Your task to perform on an android device: Open Youtube and go to "Your channel" Image 0: 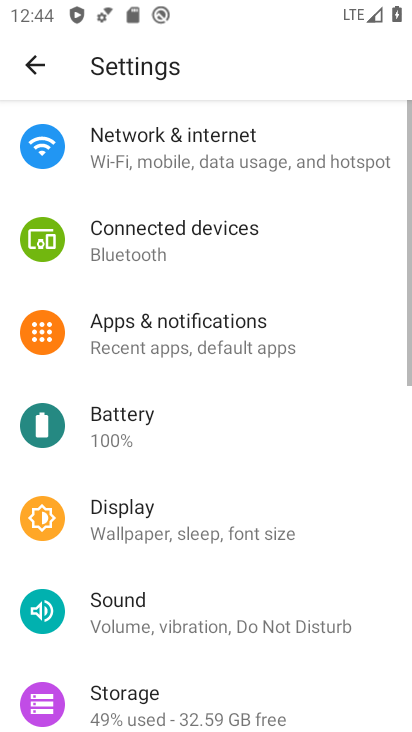
Step 0: press home button
Your task to perform on an android device: Open Youtube and go to "Your channel" Image 1: 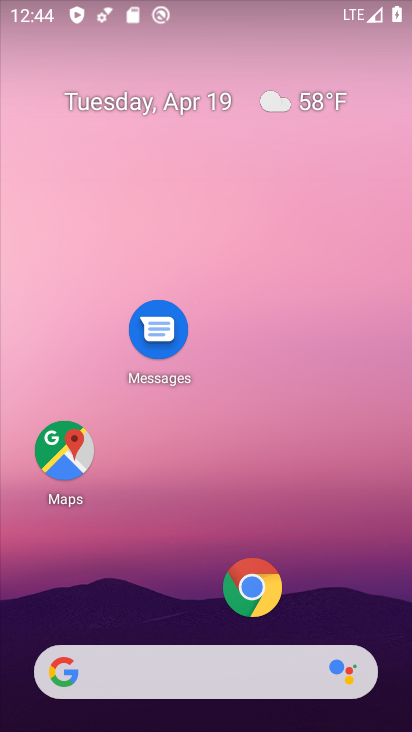
Step 1: drag from (188, 544) to (173, 150)
Your task to perform on an android device: Open Youtube and go to "Your channel" Image 2: 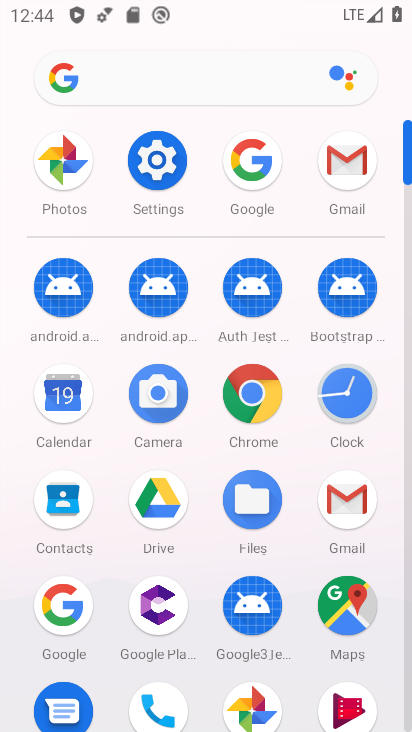
Step 2: drag from (212, 625) to (224, 161)
Your task to perform on an android device: Open Youtube and go to "Your channel" Image 3: 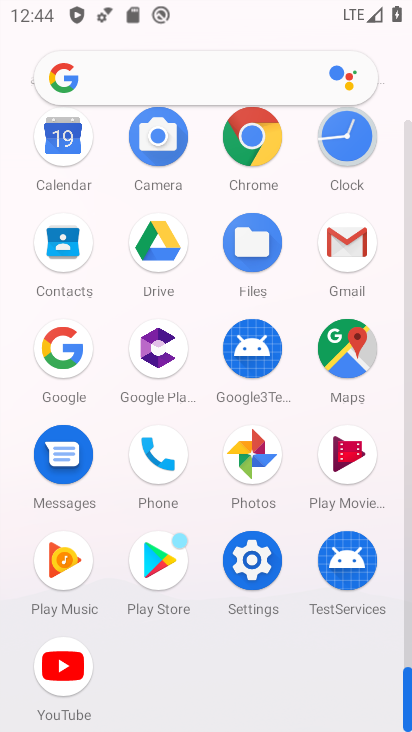
Step 3: click (63, 664)
Your task to perform on an android device: Open Youtube and go to "Your channel" Image 4: 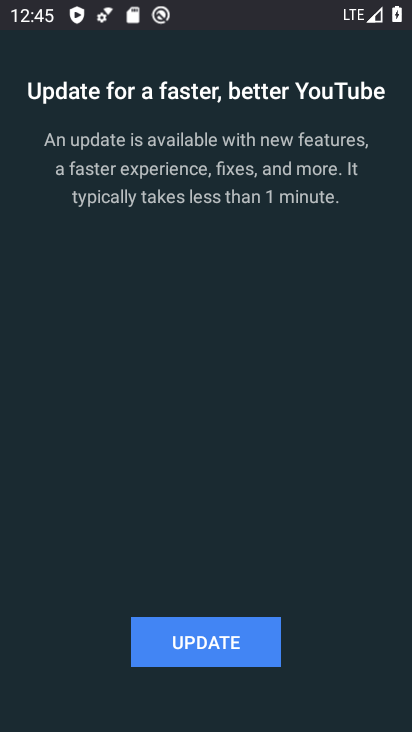
Step 4: click (201, 645)
Your task to perform on an android device: Open Youtube and go to "Your channel" Image 5: 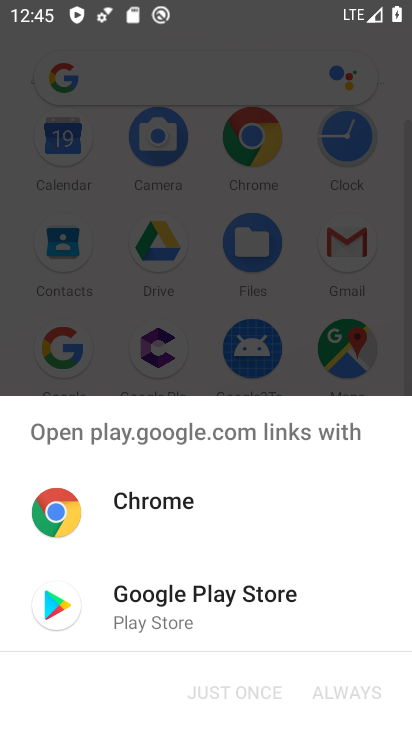
Step 5: click (168, 601)
Your task to perform on an android device: Open Youtube and go to "Your channel" Image 6: 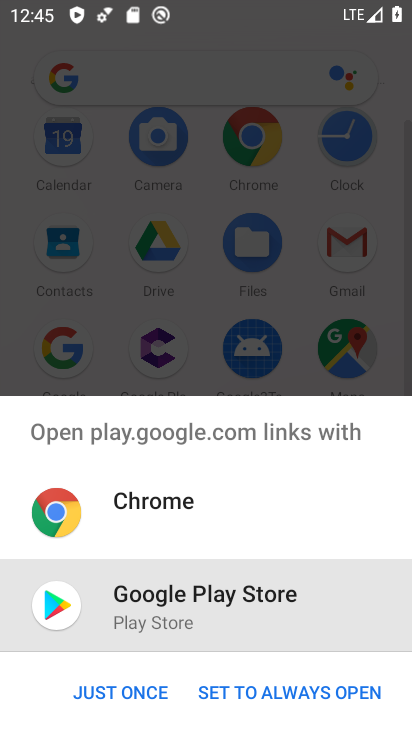
Step 6: click (143, 694)
Your task to perform on an android device: Open Youtube and go to "Your channel" Image 7: 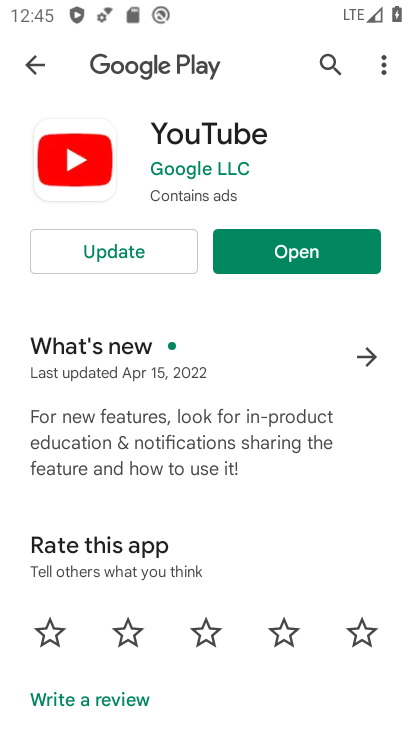
Step 7: click (120, 245)
Your task to perform on an android device: Open Youtube and go to "Your channel" Image 8: 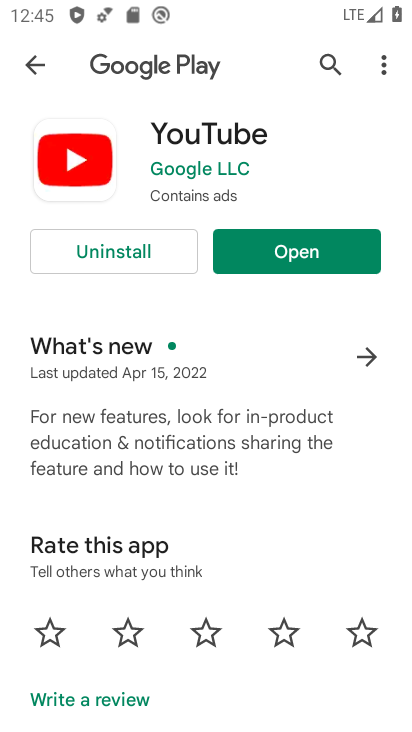
Step 8: click (284, 254)
Your task to perform on an android device: Open Youtube and go to "Your channel" Image 9: 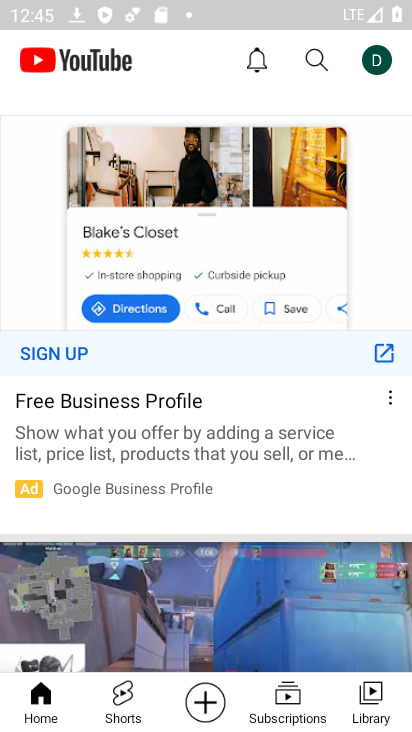
Step 9: click (373, 57)
Your task to perform on an android device: Open Youtube and go to "Your channel" Image 10: 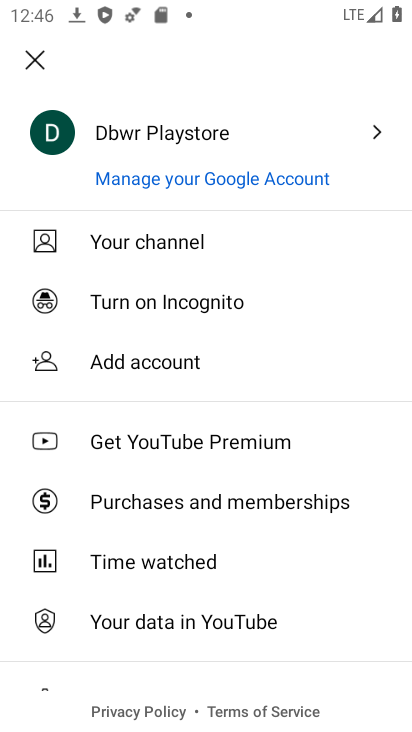
Step 10: click (156, 241)
Your task to perform on an android device: Open Youtube and go to "Your channel" Image 11: 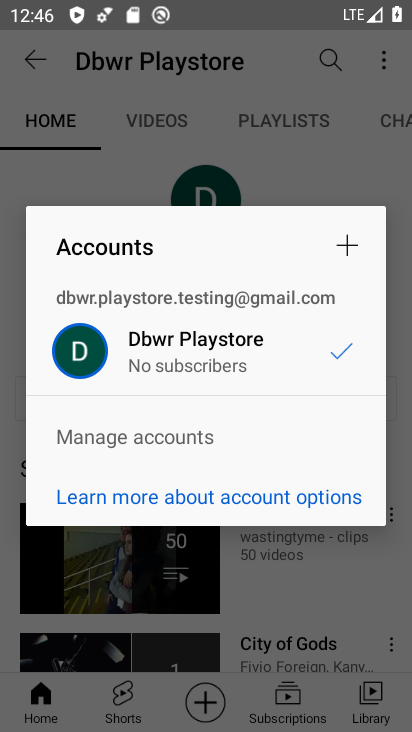
Step 11: task complete